Your task to perform on an android device: change timer sound Image 0: 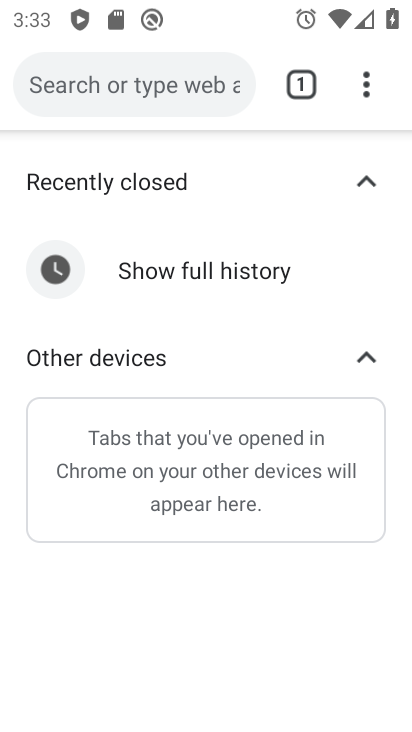
Step 0: press home button
Your task to perform on an android device: change timer sound Image 1: 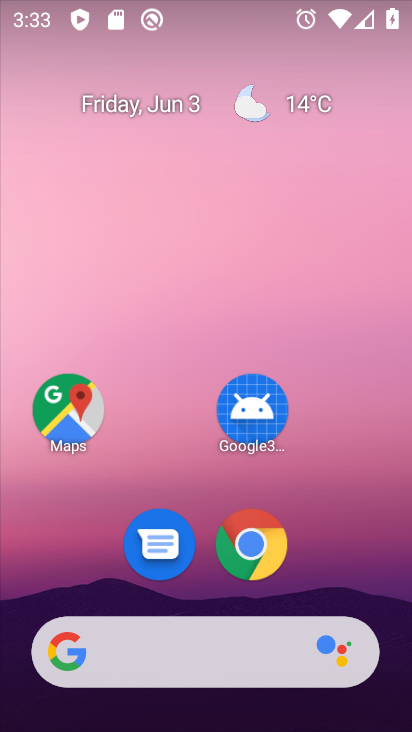
Step 1: drag from (74, 589) to (231, 166)
Your task to perform on an android device: change timer sound Image 2: 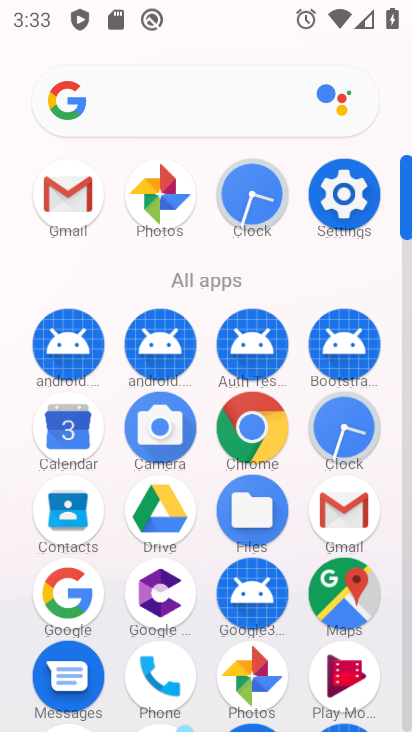
Step 2: click (338, 408)
Your task to perform on an android device: change timer sound Image 3: 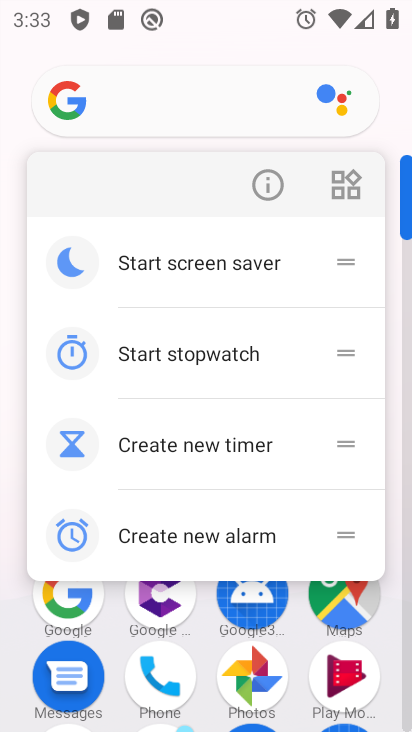
Step 3: press back button
Your task to perform on an android device: change timer sound Image 4: 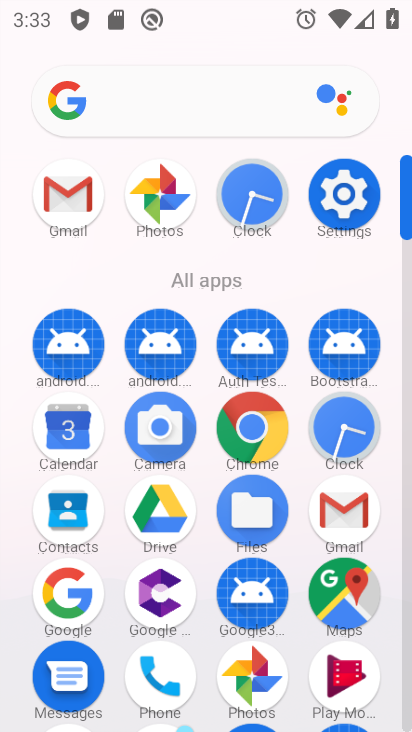
Step 4: click (341, 424)
Your task to perform on an android device: change timer sound Image 5: 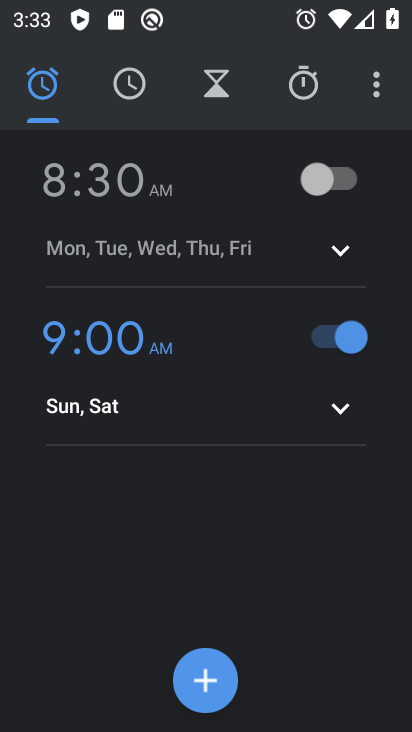
Step 5: click (387, 109)
Your task to perform on an android device: change timer sound Image 6: 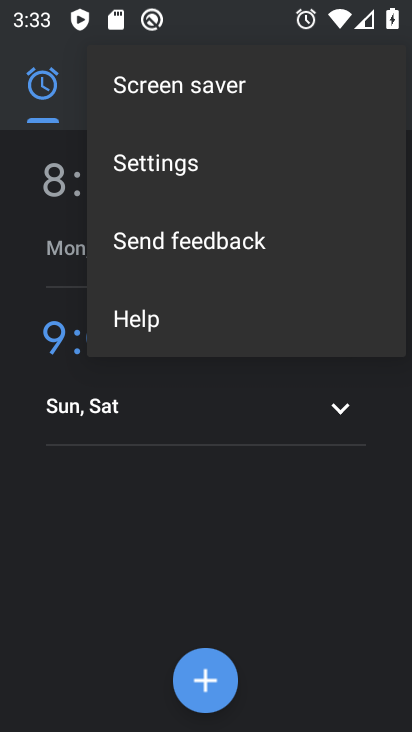
Step 6: click (282, 164)
Your task to perform on an android device: change timer sound Image 7: 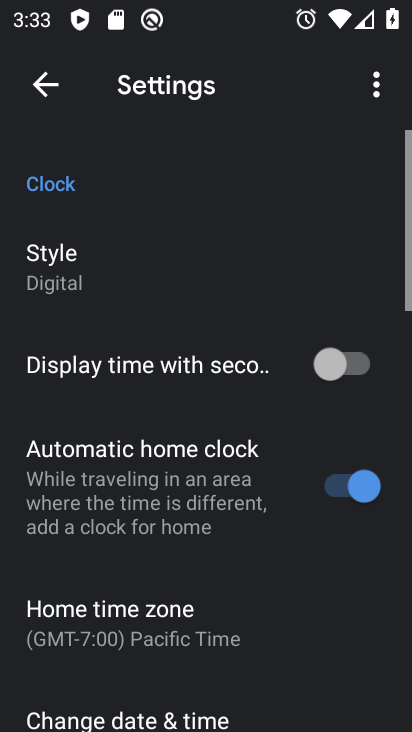
Step 7: drag from (201, 586) to (296, 128)
Your task to perform on an android device: change timer sound Image 8: 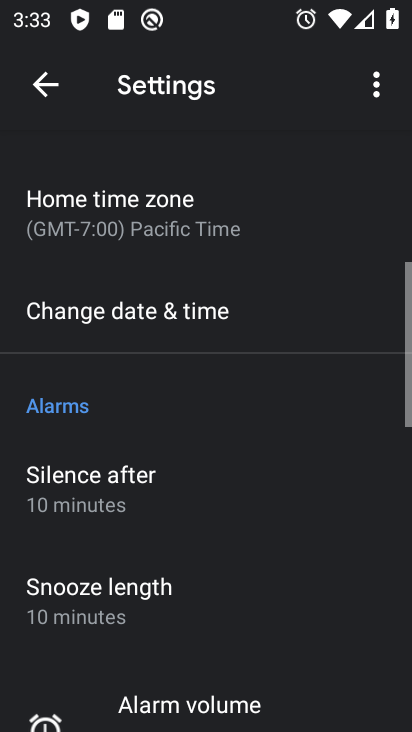
Step 8: drag from (220, 570) to (290, 289)
Your task to perform on an android device: change timer sound Image 9: 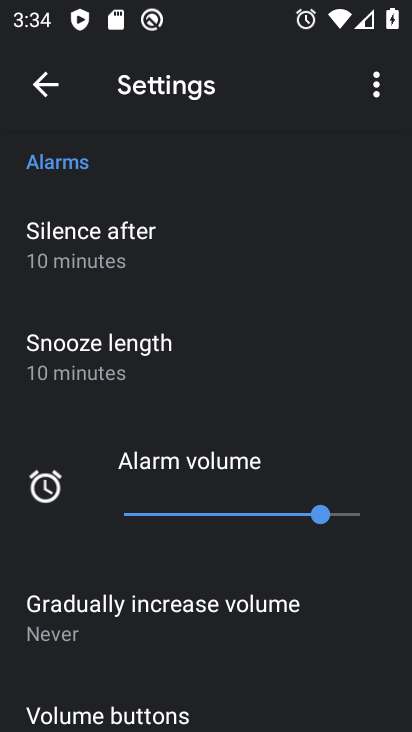
Step 9: drag from (175, 581) to (310, 213)
Your task to perform on an android device: change timer sound Image 10: 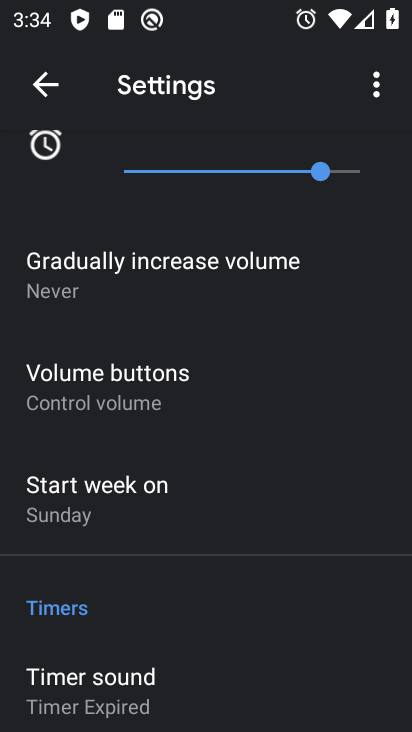
Step 10: click (167, 681)
Your task to perform on an android device: change timer sound Image 11: 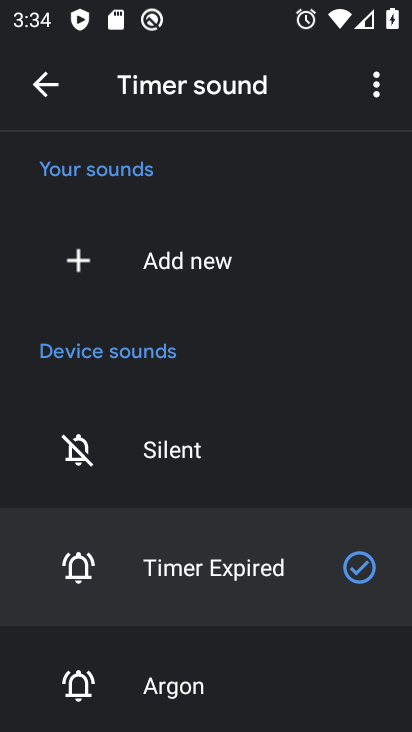
Step 11: drag from (192, 657) to (301, 251)
Your task to perform on an android device: change timer sound Image 12: 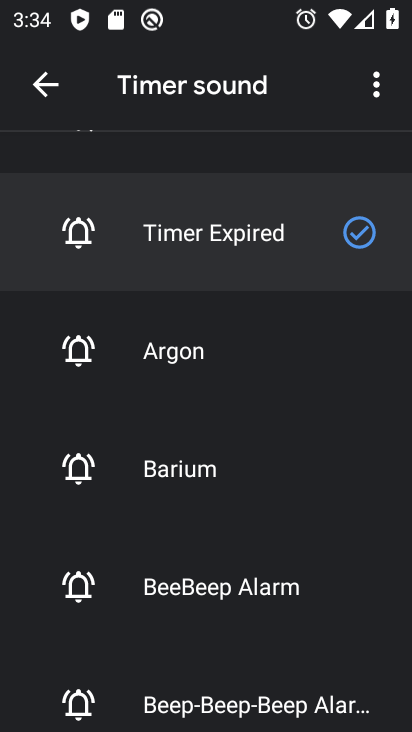
Step 12: click (232, 599)
Your task to perform on an android device: change timer sound Image 13: 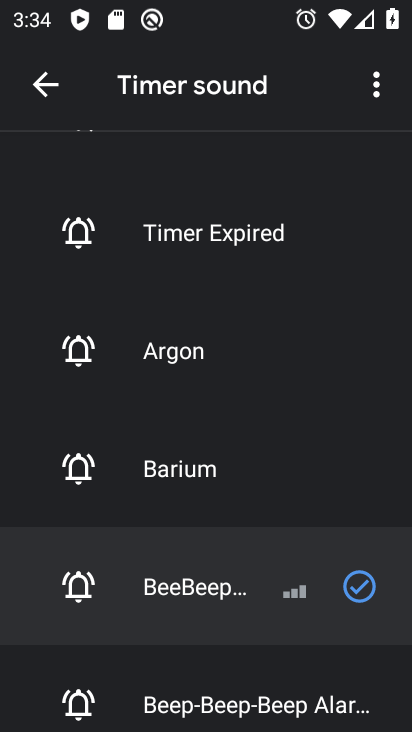
Step 13: task complete